Your task to perform on an android device: Open the Play Movies app and select the watchlist tab. Image 0: 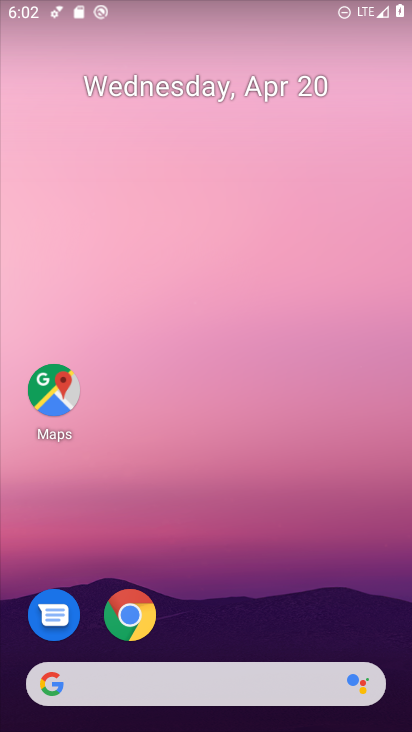
Step 0: drag from (281, 621) to (278, 43)
Your task to perform on an android device: Open the Play Movies app and select the watchlist tab. Image 1: 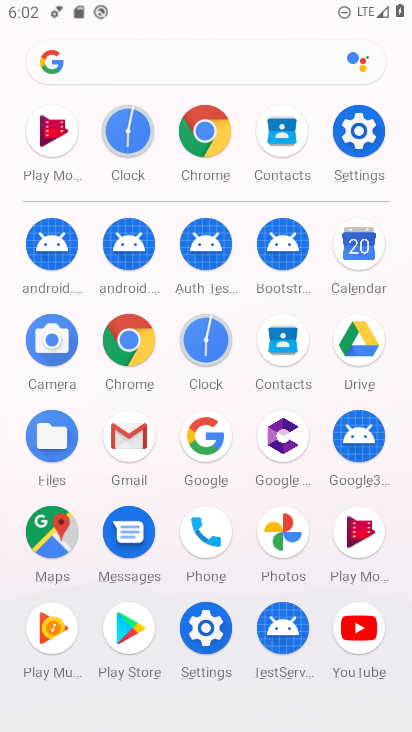
Step 1: click (49, 134)
Your task to perform on an android device: Open the Play Movies app and select the watchlist tab. Image 2: 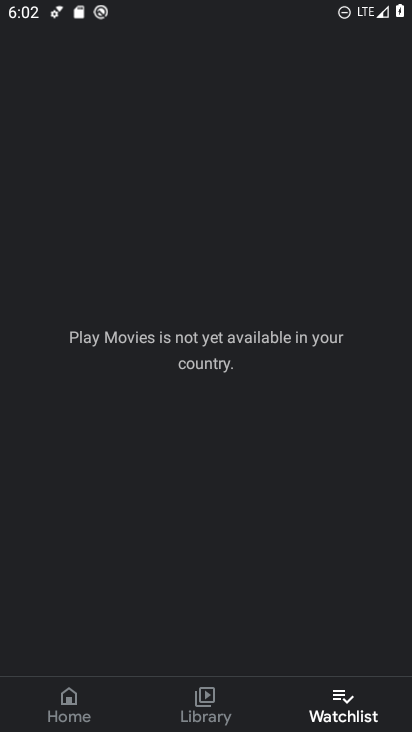
Step 2: task complete